Your task to perform on an android device: Search for the ikea sjalv lamp Image 0: 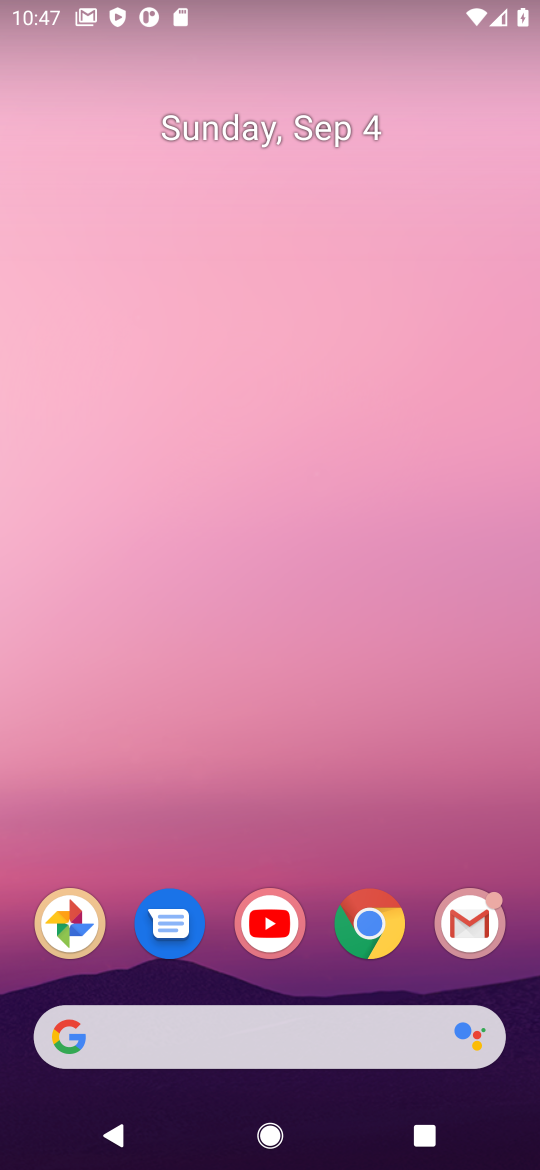
Step 0: click (374, 910)
Your task to perform on an android device: Search for the ikea sjalv lamp Image 1: 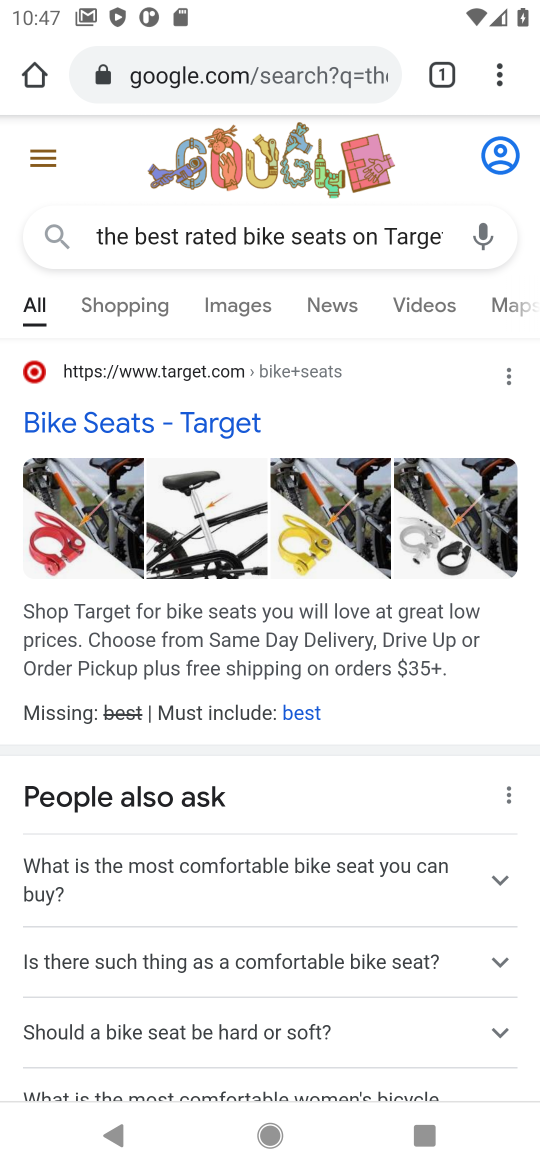
Step 1: press back button
Your task to perform on an android device: Search for the ikea sjalv lamp Image 2: 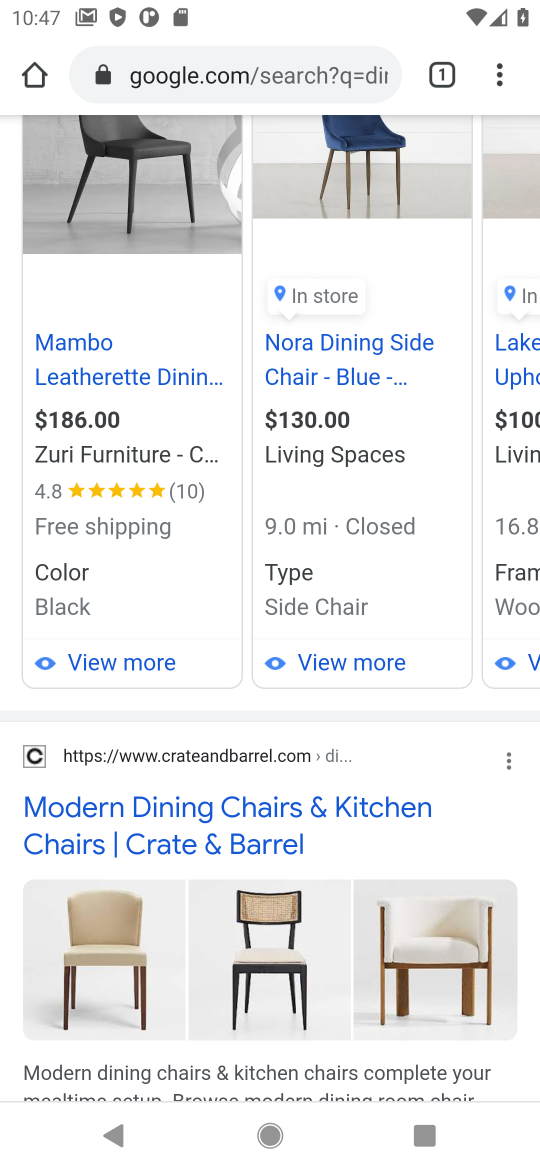
Step 2: click (248, 78)
Your task to perform on an android device: Search for the ikea sjalv lamp Image 3: 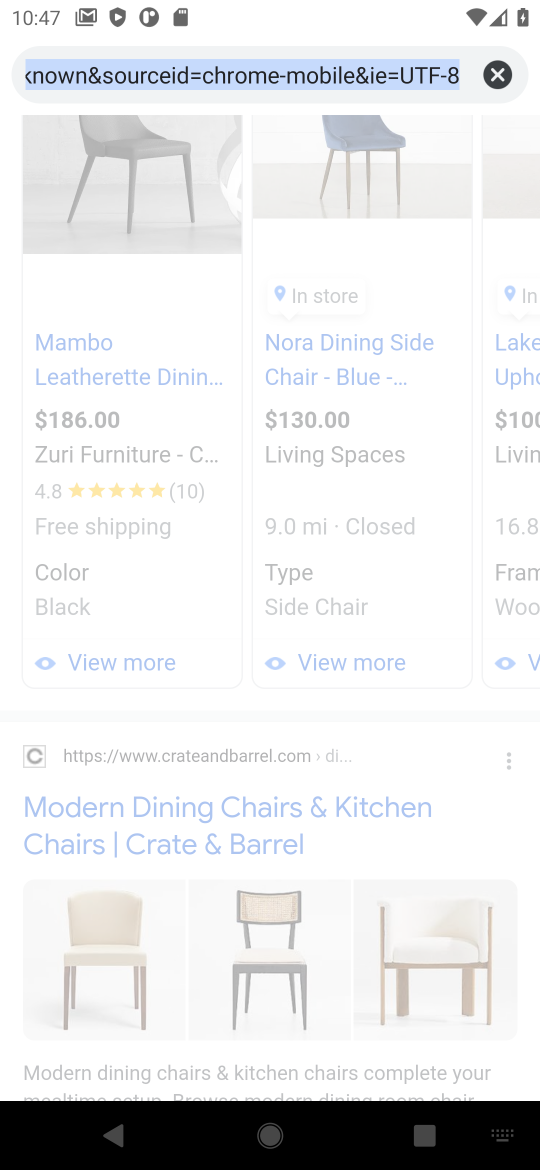
Step 3: click (493, 80)
Your task to perform on an android device: Search for the ikea sjalv lamp Image 4: 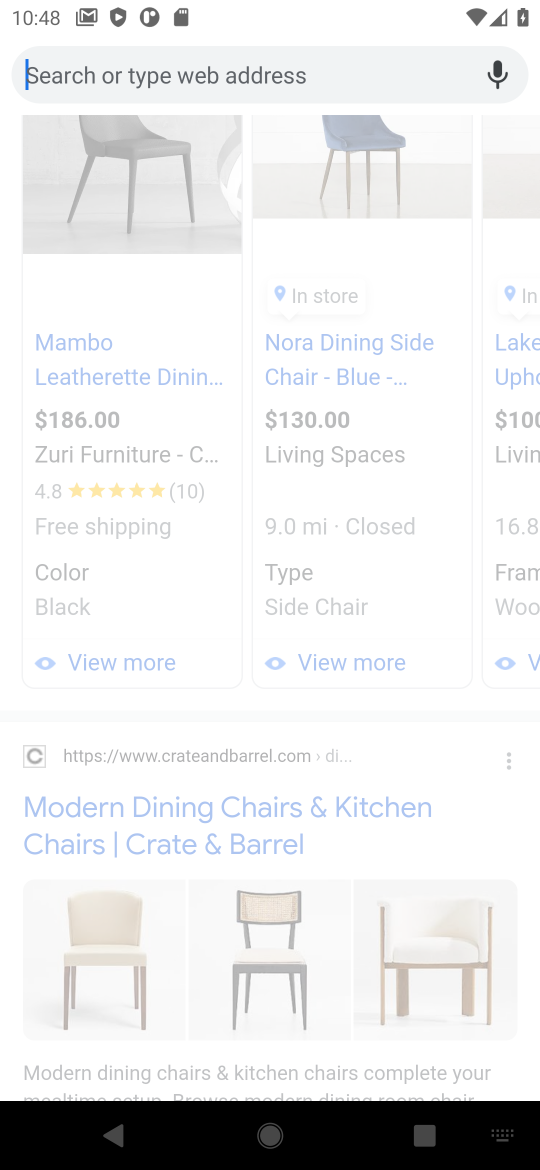
Step 4: type " the ikea sjalv lamp"
Your task to perform on an android device: Search for the ikea sjalv lamp Image 5: 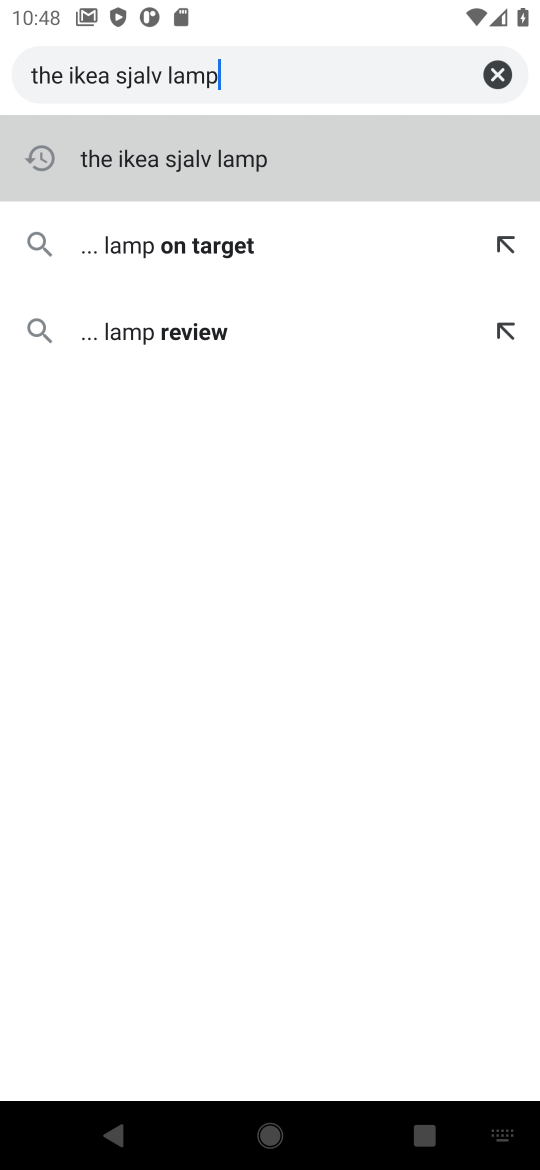
Step 5: click (213, 146)
Your task to perform on an android device: Search for the ikea sjalv lamp Image 6: 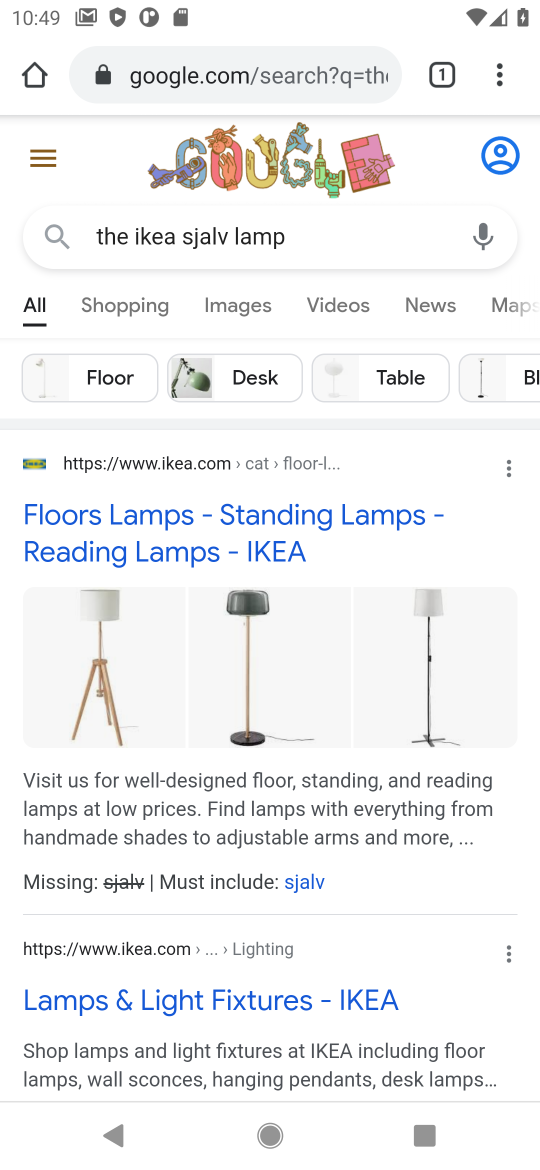
Step 6: task complete